Your task to perform on an android device: move a message to another label in the gmail app Image 0: 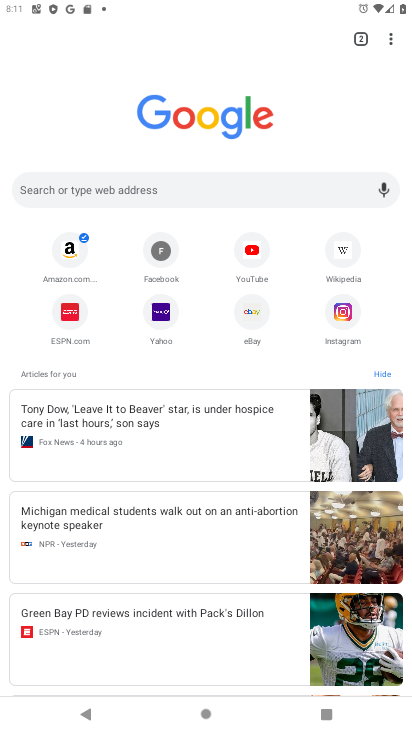
Step 0: press back button
Your task to perform on an android device: move a message to another label in the gmail app Image 1: 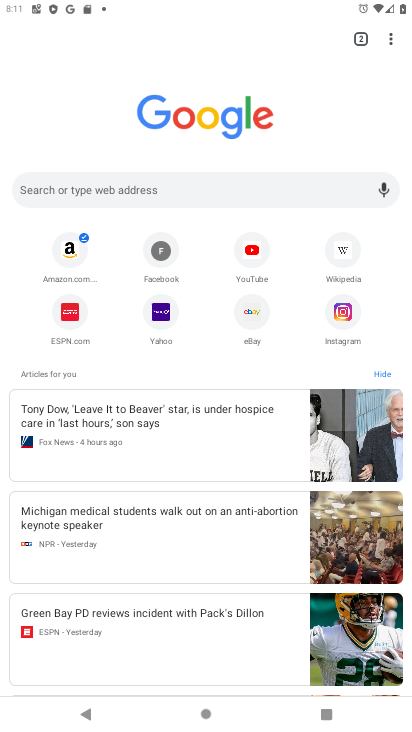
Step 1: press back button
Your task to perform on an android device: move a message to another label in the gmail app Image 2: 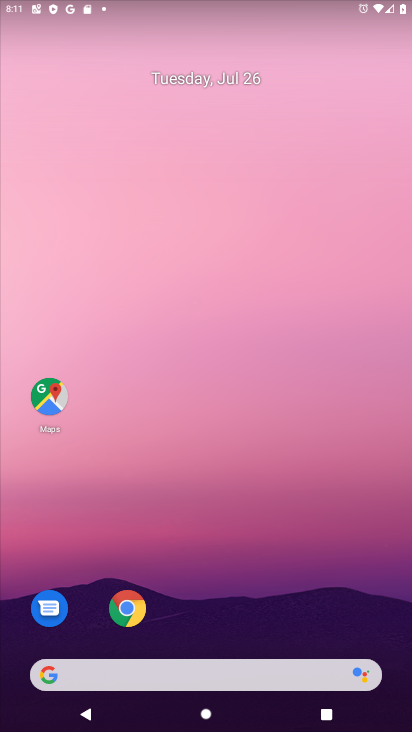
Step 2: drag from (261, 657) to (178, 333)
Your task to perform on an android device: move a message to another label in the gmail app Image 3: 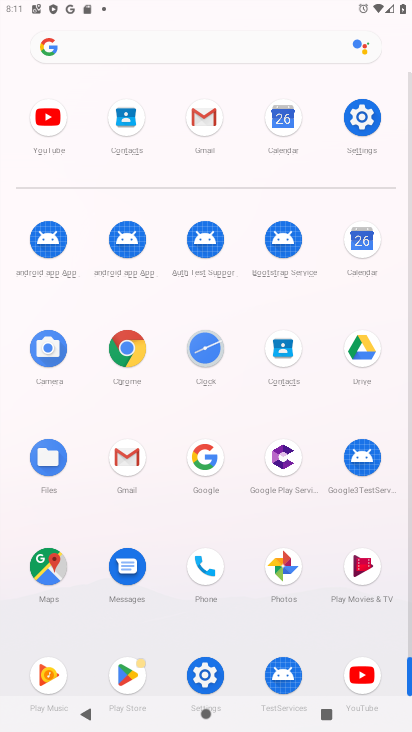
Step 3: click (114, 451)
Your task to perform on an android device: move a message to another label in the gmail app Image 4: 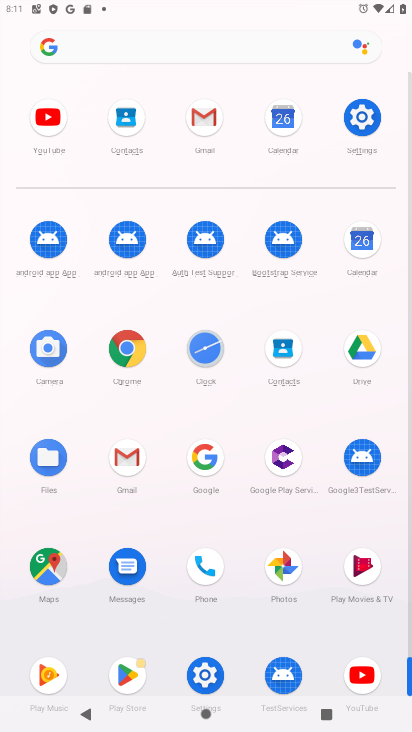
Step 4: click (115, 451)
Your task to perform on an android device: move a message to another label in the gmail app Image 5: 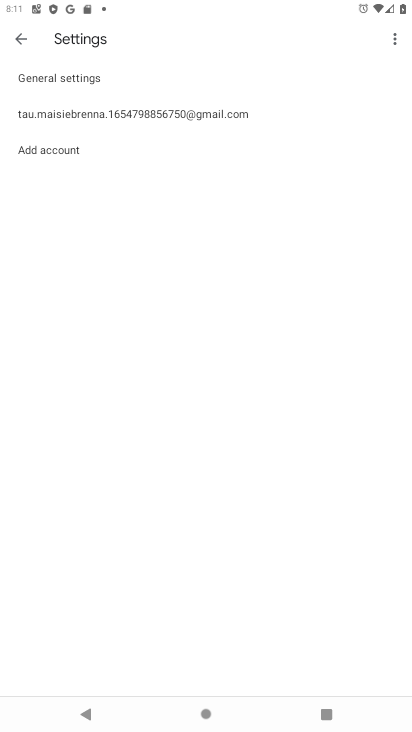
Step 5: click (73, 111)
Your task to perform on an android device: move a message to another label in the gmail app Image 6: 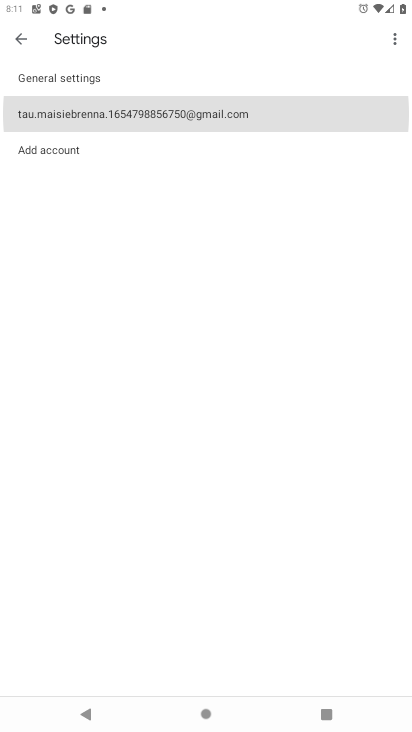
Step 6: click (71, 110)
Your task to perform on an android device: move a message to another label in the gmail app Image 7: 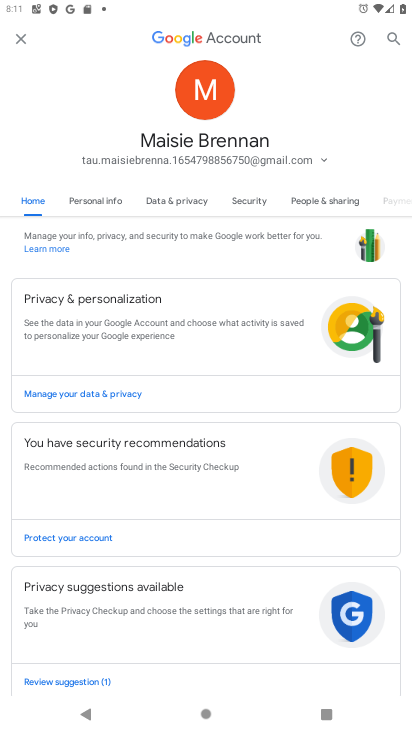
Step 7: click (20, 34)
Your task to perform on an android device: move a message to another label in the gmail app Image 8: 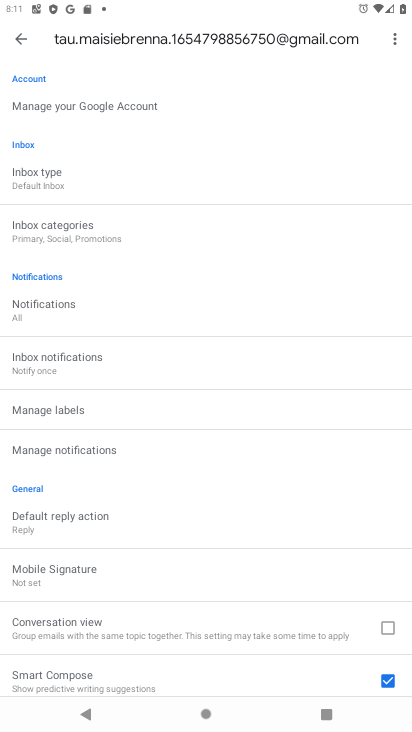
Step 8: drag from (77, 473) to (0, 92)
Your task to perform on an android device: move a message to another label in the gmail app Image 9: 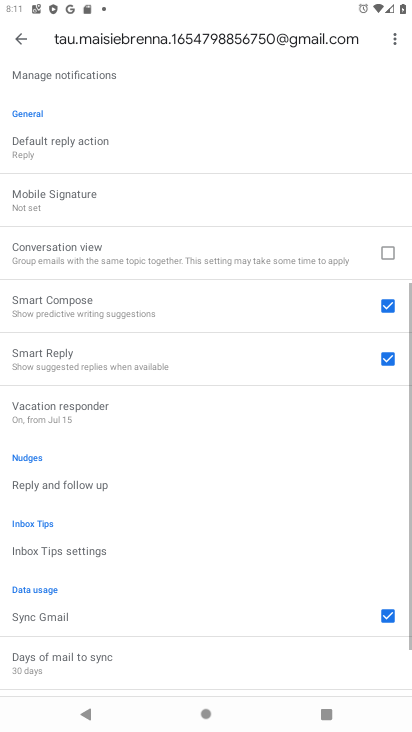
Step 9: drag from (121, 505) to (109, 136)
Your task to perform on an android device: move a message to another label in the gmail app Image 10: 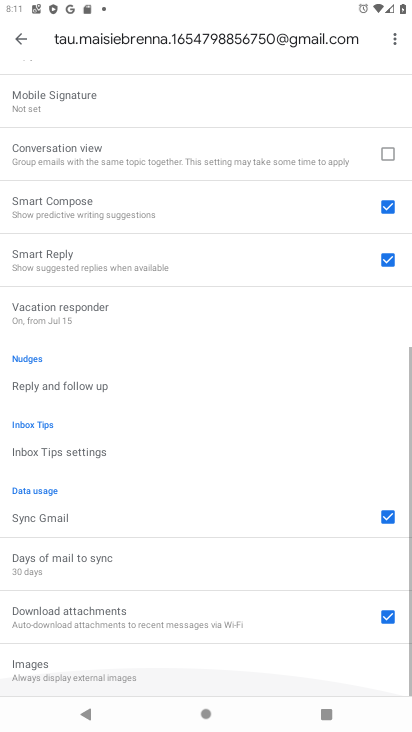
Step 10: drag from (177, 486) to (177, 165)
Your task to perform on an android device: move a message to another label in the gmail app Image 11: 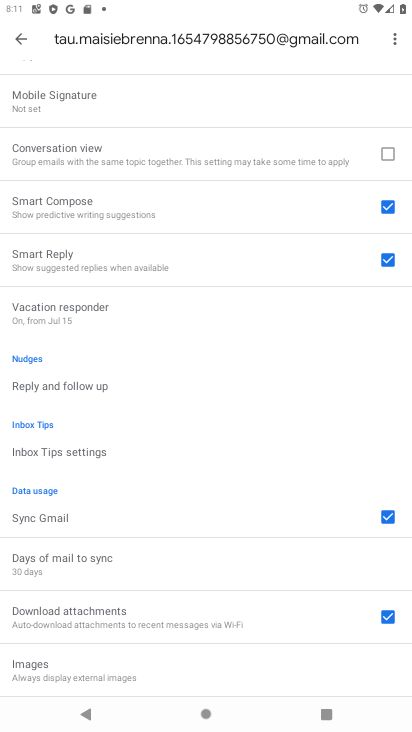
Step 11: drag from (177, 145) to (225, 551)
Your task to perform on an android device: move a message to another label in the gmail app Image 12: 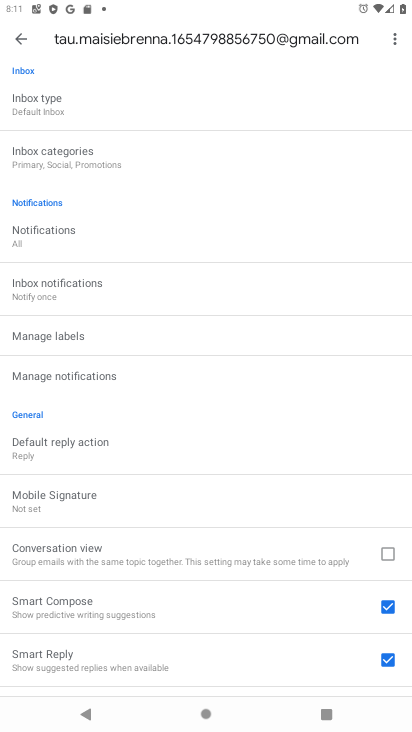
Step 12: click (21, 45)
Your task to perform on an android device: move a message to another label in the gmail app Image 13: 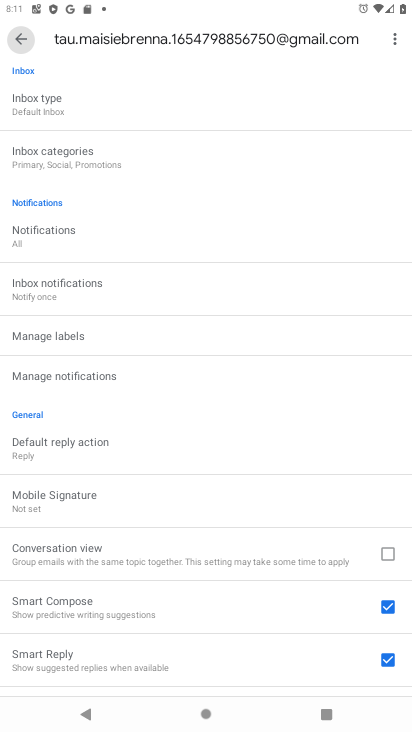
Step 13: click (21, 45)
Your task to perform on an android device: move a message to another label in the gmail app Image 14: 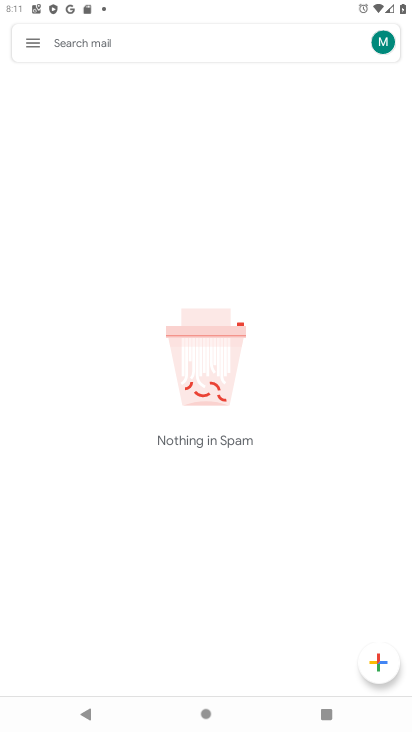
Step 14: click (28, 33)
Your task to perform on an android device: move a message to another label in the gmail app Image 15: 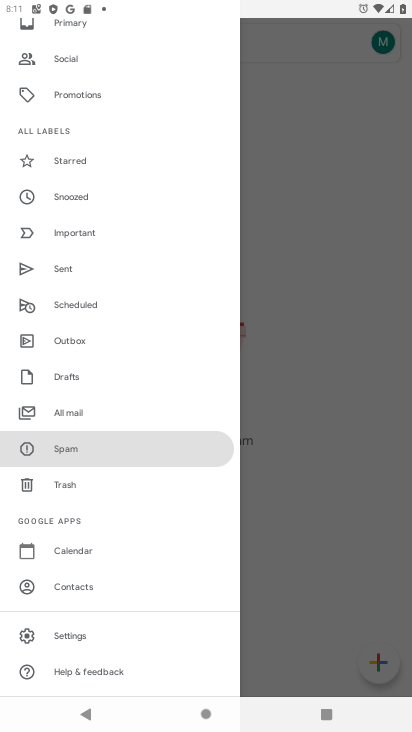
Step 15: click (68, 403)
Your task to perform on an android device: move a message to another label in the gmail app Image 16: 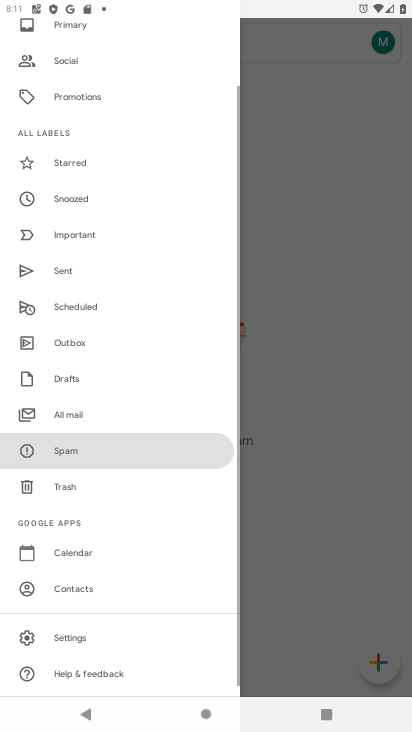
Step 16: click (71, 411)
Your task to perform on an android device: move a message to another label in the gmail app Image 17: 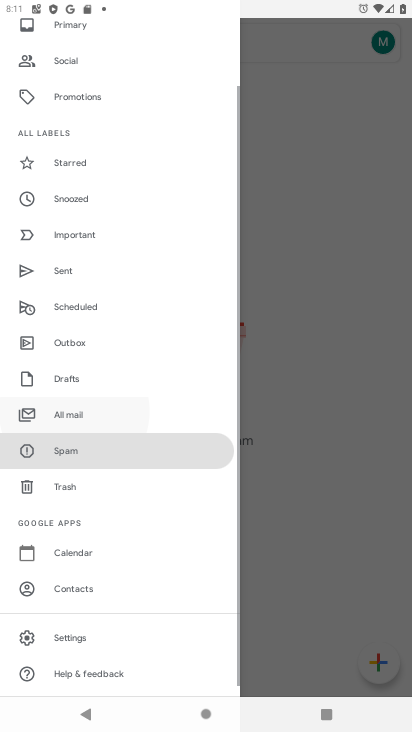
Step 17: click (73, 412)
Your task to perform on an android device: move a message to another label in the gmail app Image 18: 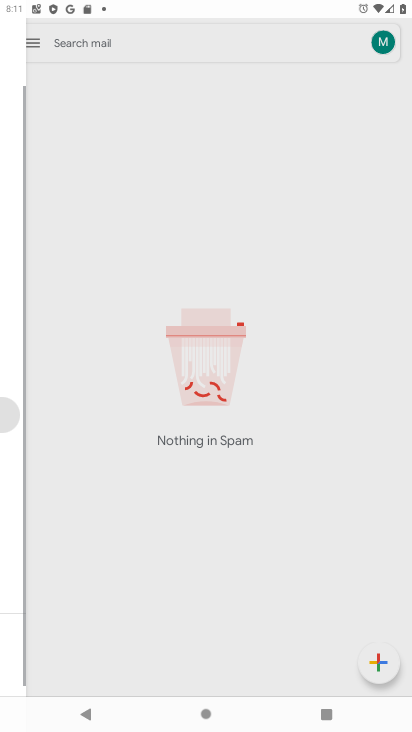
Step 18: click (78, 411)
Your task to perform on an android device: move a message to another label in the gmail app Image 19: 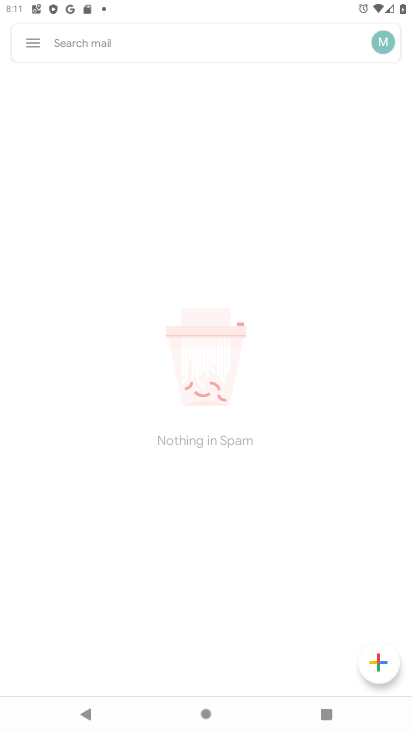
Step 19: click (78, 411)
Your task to perform on an android device: move a message to another label in the gmail app Image 20: 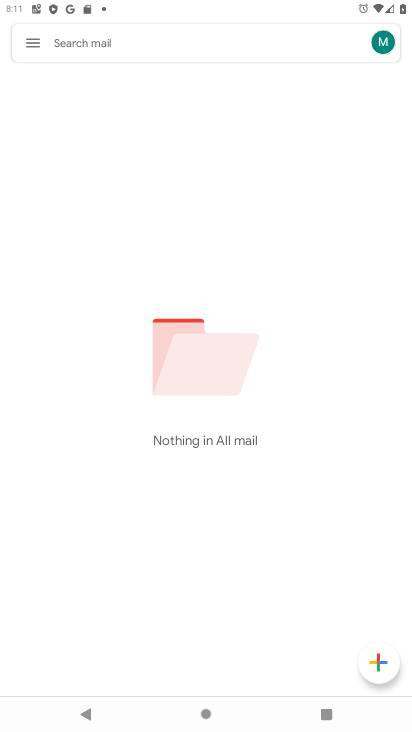
Step 20: task complete